Your task to perform on an android device: delete the emails in spam in the gmail app Image 0: 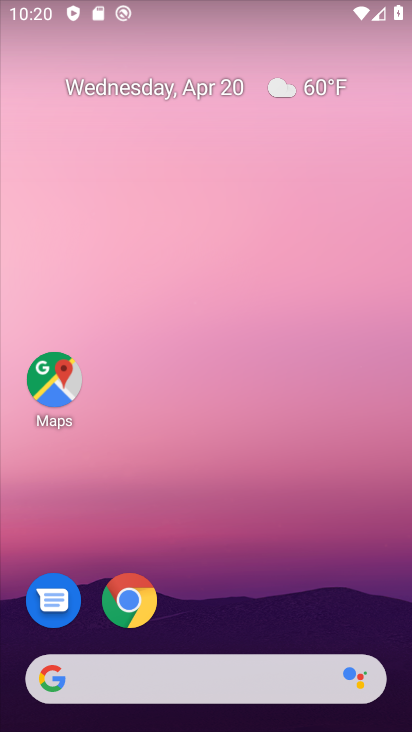
Step 0: drag from (295, 576) to (317, 170)
Your task to perform on an android device: delete the emails in spam in the gmail app Image 1: 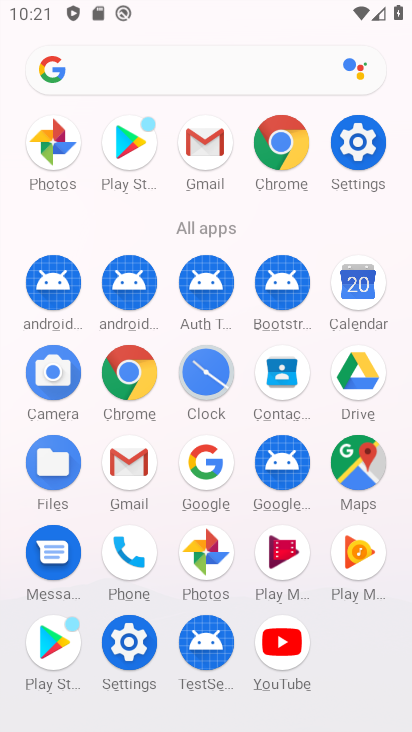
Step 1: click (115, 463)
Your task to perform on an android device: delete the emails in spam in the gmail app Image 2: 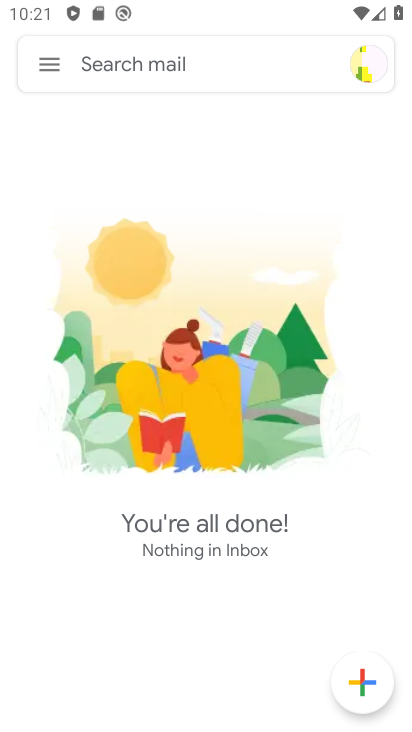
Step 2: click (38, 60)
Your task to perform on an android device: delete the emails in spam in the gmail app Image 3: 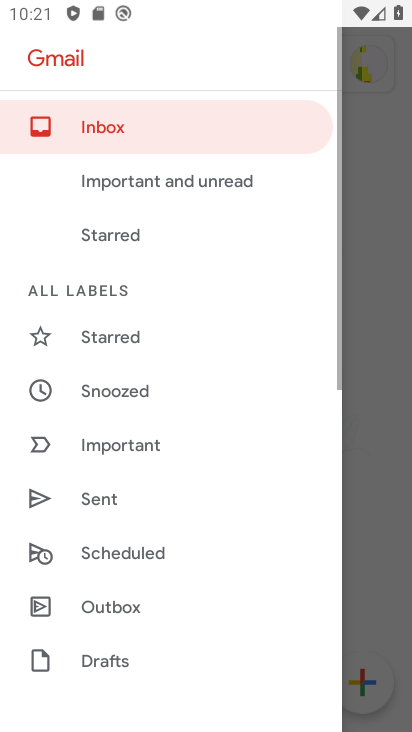
Step 3: drag from (159, 529) to (211, 87)
Your task to perform on an android device: delete the emails in spam in the gmail app Image 4: 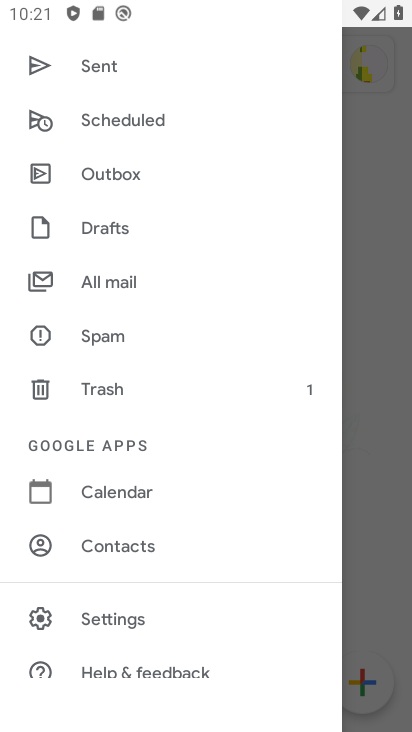
Step 4: click (103, 337)
Your task to perform on an android device: delete the emails in spam in the gmail app Image 5: 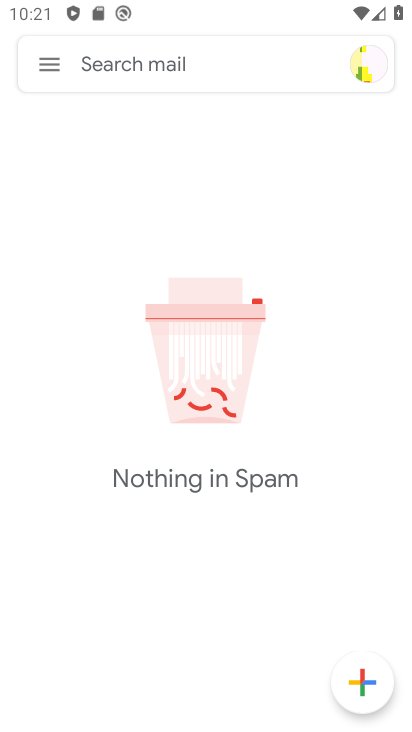
Step 5: task complete